Your task to perform on an android device: Is it going to rain tomorrow? Image 0: 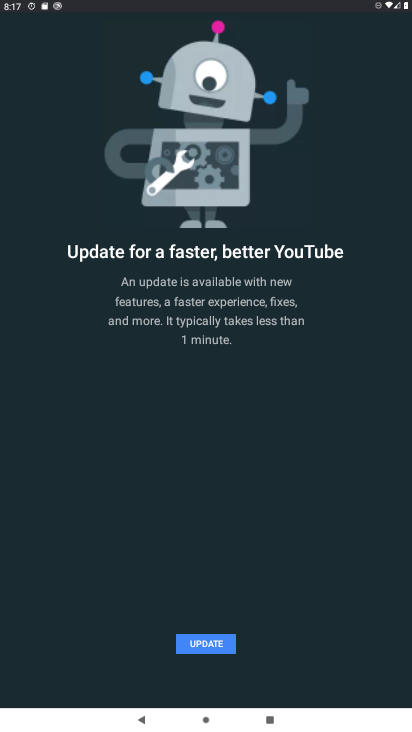
Step 0: press home button
Your task to perform on an android device: Is it going to rain tomorrow? Image 1: 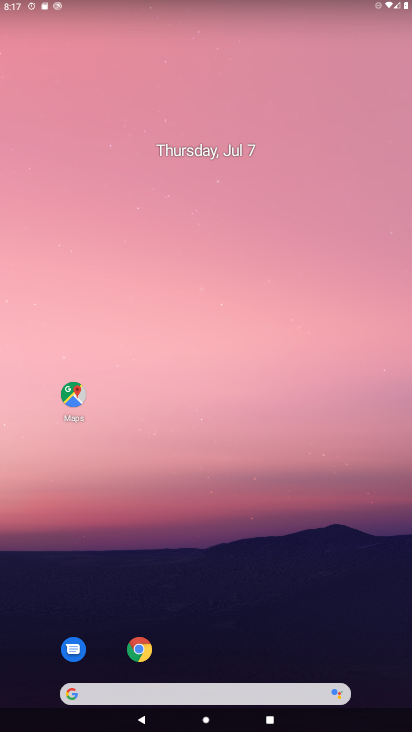
Step 1: click (162, 690)
Your task to perform on an android device: Is it going to rain tomorrow? Image 2: 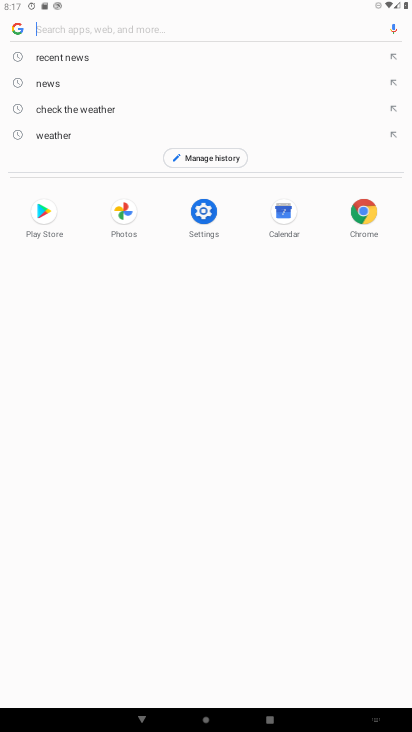
Step 2: click (73, 141)
Your task to perform on an android device: Is it going to rain tomorrow? Image 3: 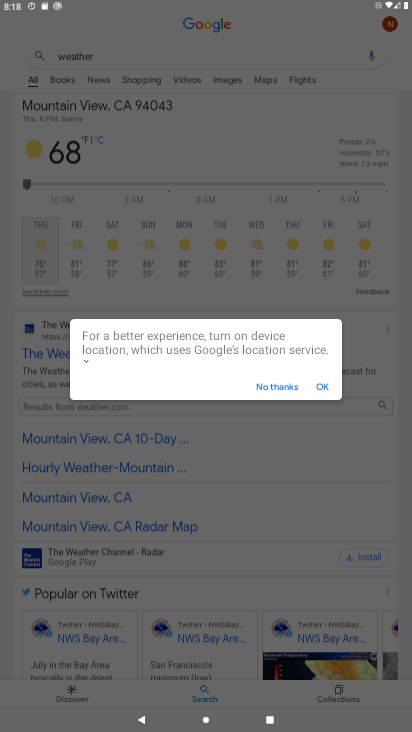
Step 3: click (318, 381)
Your task to perform on an android device: Is it going to rain tomorrow? Image 4: 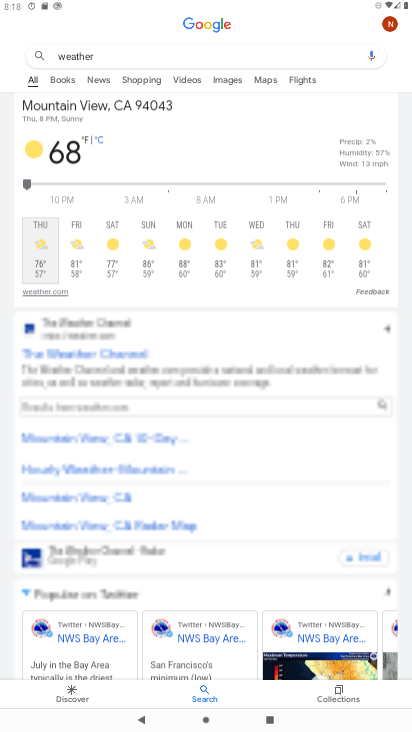
Step 4: click (114, 154)
Your task to perform on an android device: Is it going to rain tomorrow? Image 5: 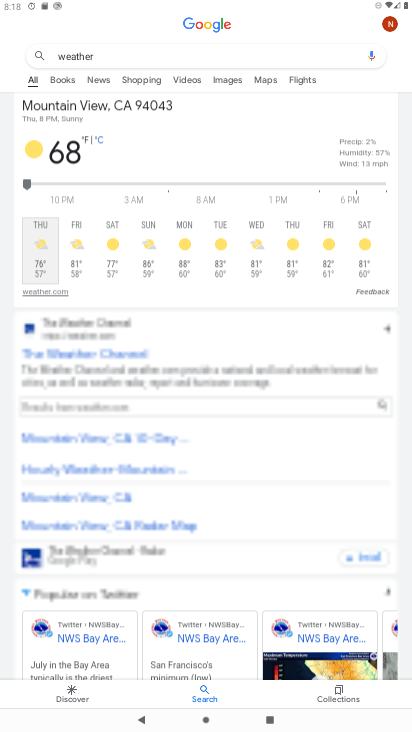
Step 5: click (97, 138)
Your task to perform on an android device: Is it going to rain tomorrow? Image 6: 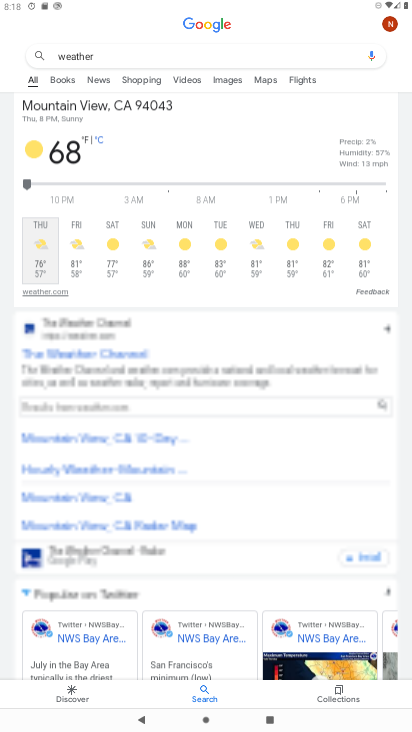
Step 6: click (39, 148)
Your task to perform on an android device: Is it going to rain tomorrow? Image 7: 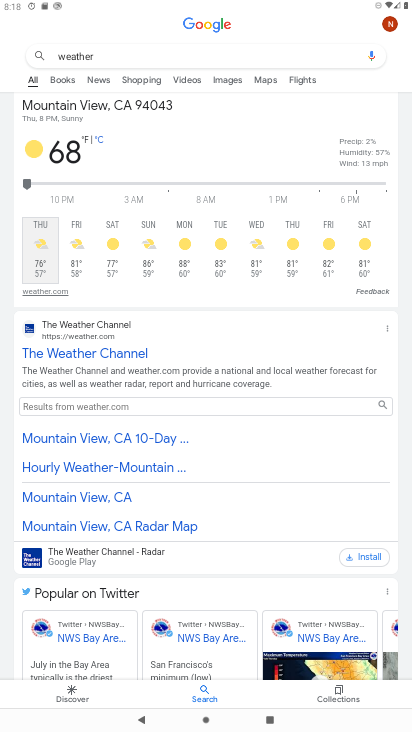
Step 7: click (75, 222)
Your task to perform on an android device: Is it going to rain tomorrow? Image 8: 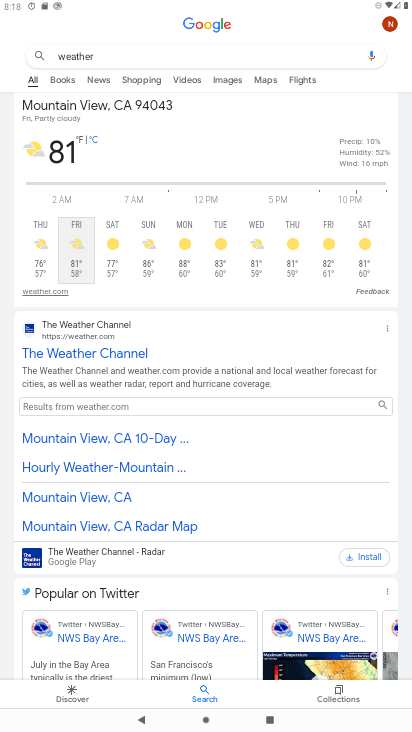
Step 8: task complete